Your task to perform on an android device: Clear the shopping cart on walmart.com. Add "razer huntsman" to the cart on walmart.com Image 0: 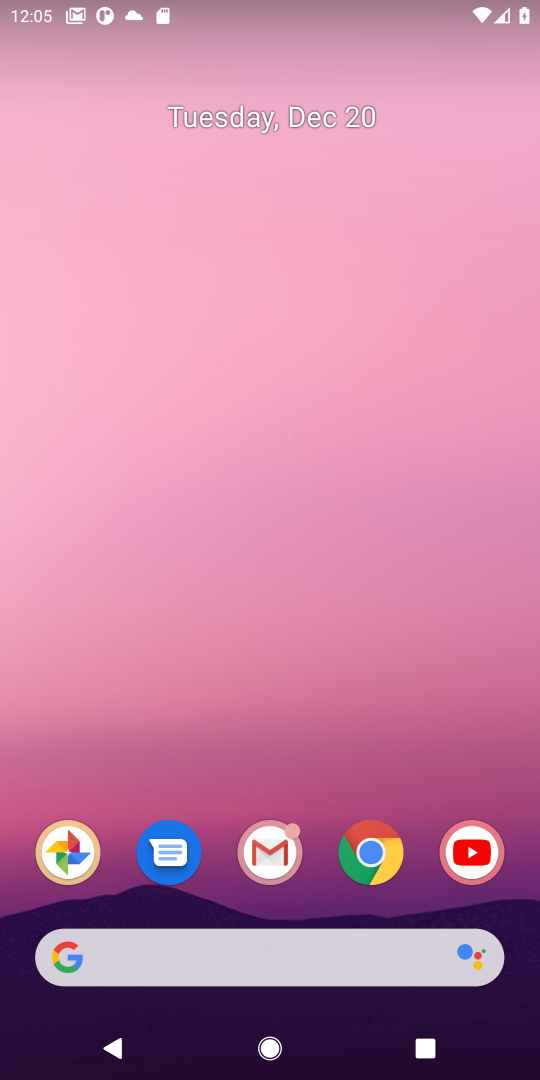
Step 0: click (357, 861)
Your task to perform on an android device: Clear the shopping cart on walmart.com. Add "razer huntsman" to the cart on walmart.com Image 1: 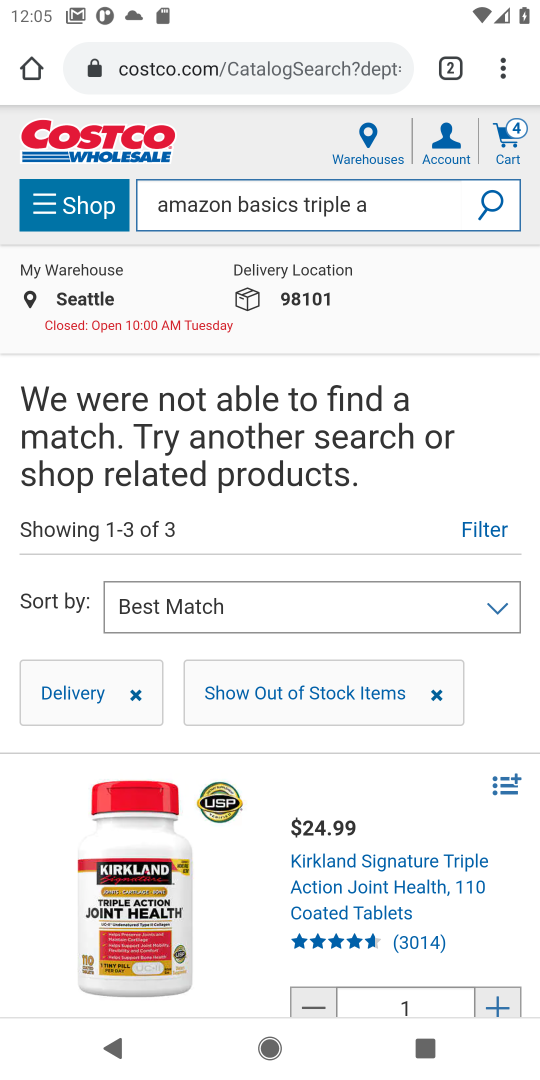
Step 1: click (211, 78)
Your task to perform on an android device: Clear the shopping cart on walmart.com. Add "razer huntsman" to the cart on walmart.com Image 2: 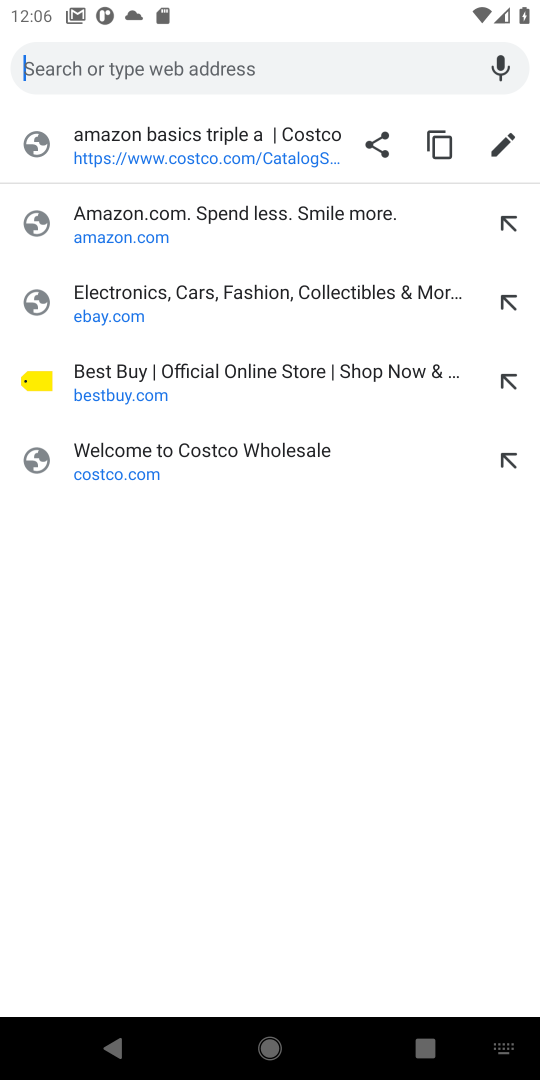
Step 2: type "walmart.com"
Your task to perform on an android device: Clear the shopping cart on walmart.com. Add "razer huntsman" to the cart on walmart.com Image 3: 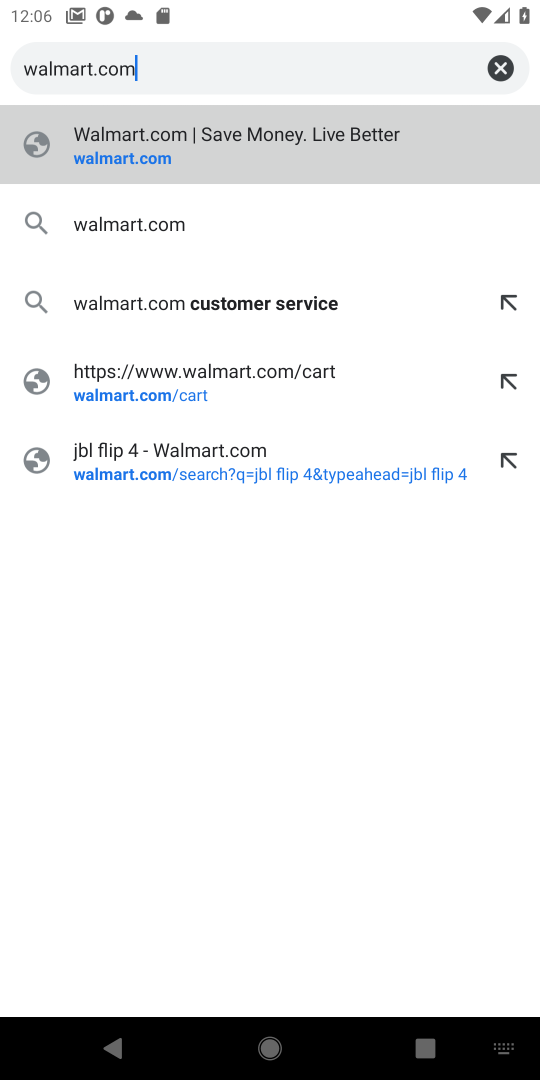
Step 3: click (117, 161)
Your task to perform on an android device: Clear the shopping cart on walmart.com. Add "razer huntsman" to the cart on walmart.com Image 4: 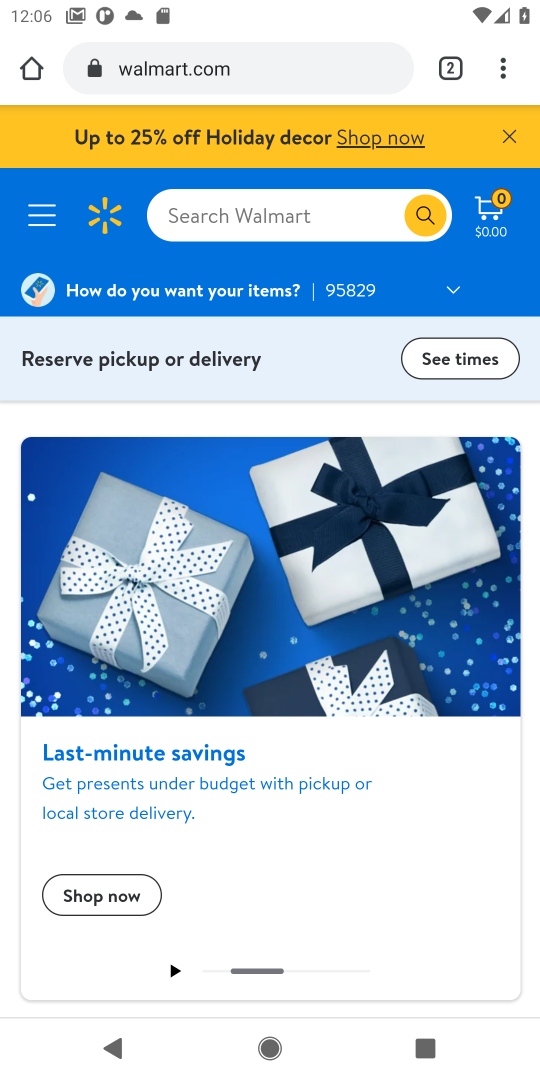
Step 4: click (496, 222)
Your task to perform on an android device: Clear the shopping cart on walmart.com. Add "razer huntsman" to the cart on walmart.com Image 5: 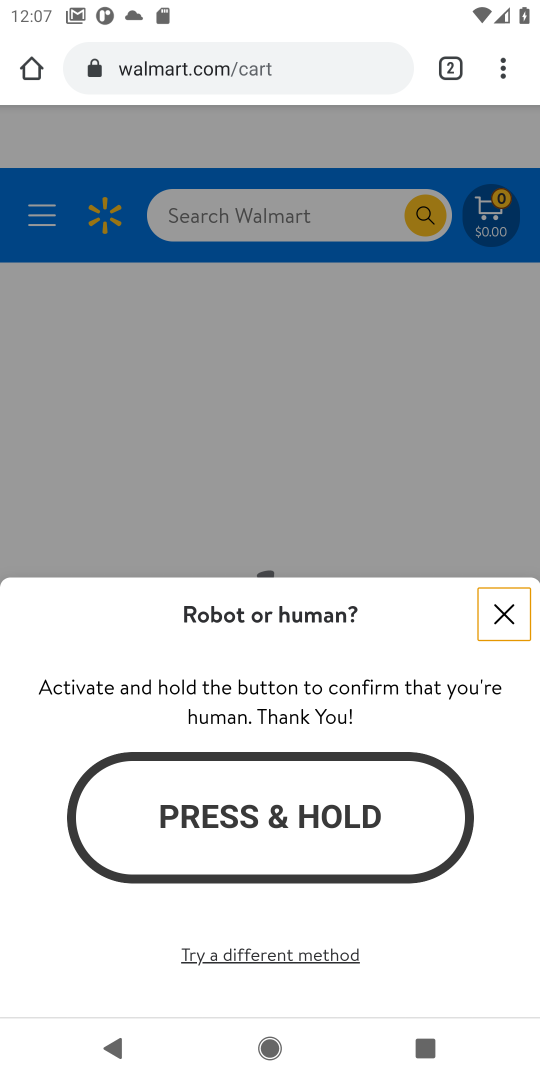
Step 5: click (269, 953)
Your task to perform on an android device: Clear the shopping cart on walmart.com. Add "razer huntsman" to the cart on walmart.com Image 6: 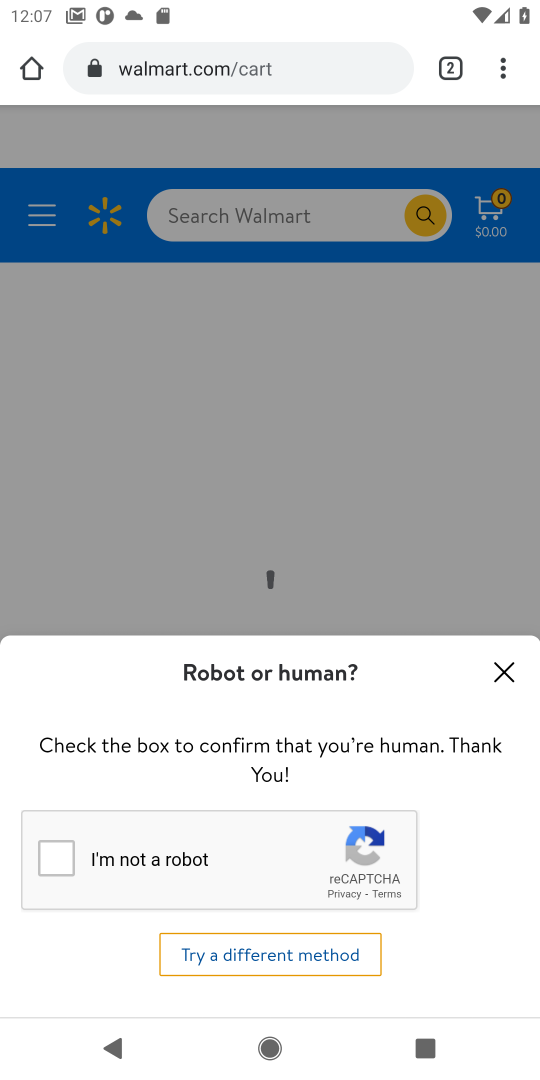
Step 6: click (48, 855)
Your task to perform on an android device: Clear the shopping cart on walmart.com. Add "razer huntsman" to the cart on walmart.com Image 7: 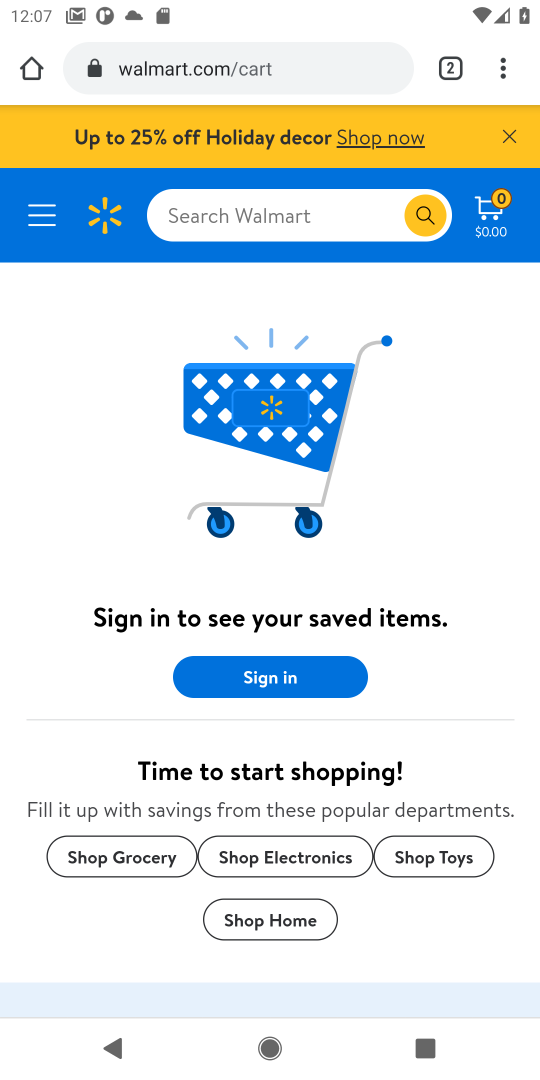
Step 7: click (202, 232)
Your task to perform on an android device: Clear the shopping cart on walmart.com. Add "razer huntsman" to the cart on walmart.com Image 8: 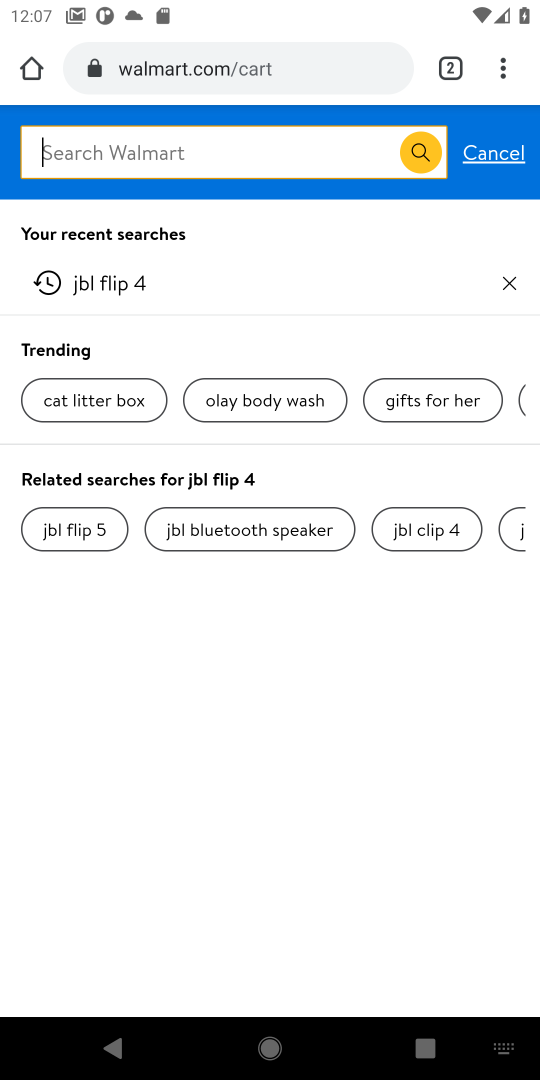
Step 8: type "razer huntsman"
Your task to perform on an android device: Clear the shopping cart on walmart.com. Add "razer huntsman" to the cart on walmart.com Image 9: 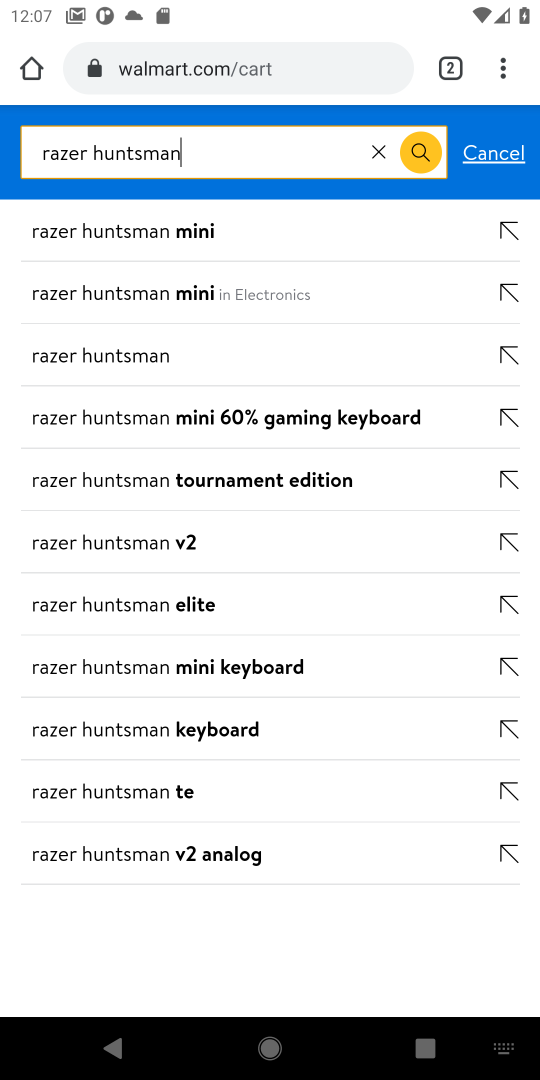
Step 9: click (100, 358)
Your task to perform on an android device: Clear the shopping cart on walmart.com. Add "razer huntsman" to the cart on walmart.com Image 10: 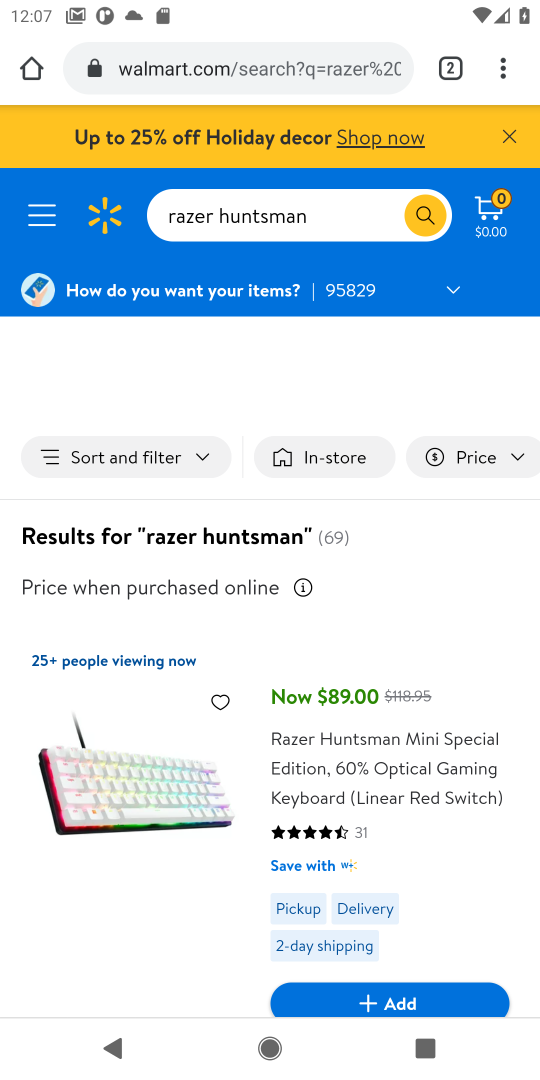
Step 10: drag from (235, 767) to (263, 525)
Your task to perform on an android device: Clear the shopping cart on walmart.com. Add "razer huntsman" to the cart on walmart.com Image 11: 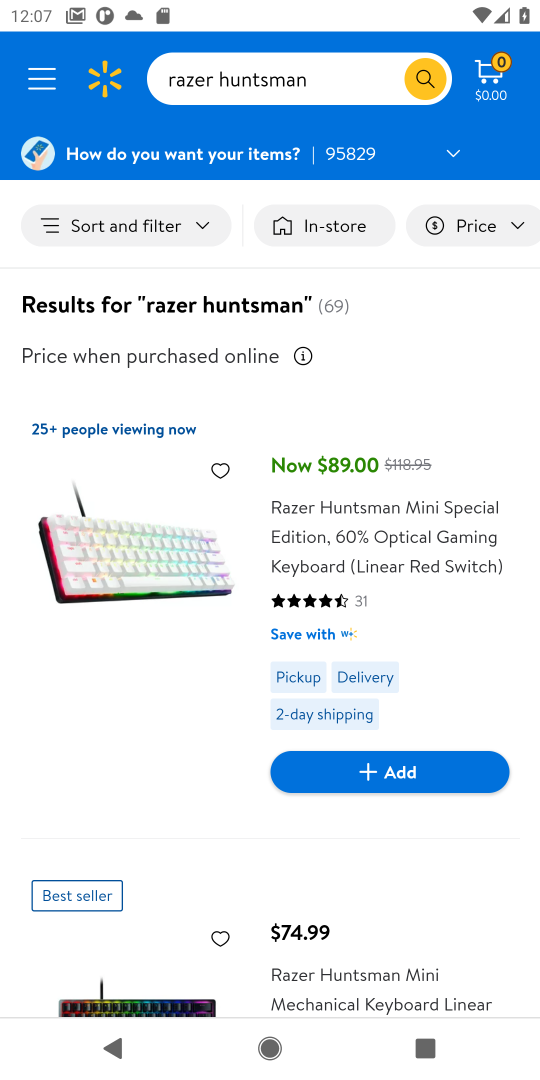
Step 11: click (397, 770)
Your task to perform on an android device: Clear the shopping cart on walmart.com. Add "razer huntsman" to the cart on walmart.com Image 12: 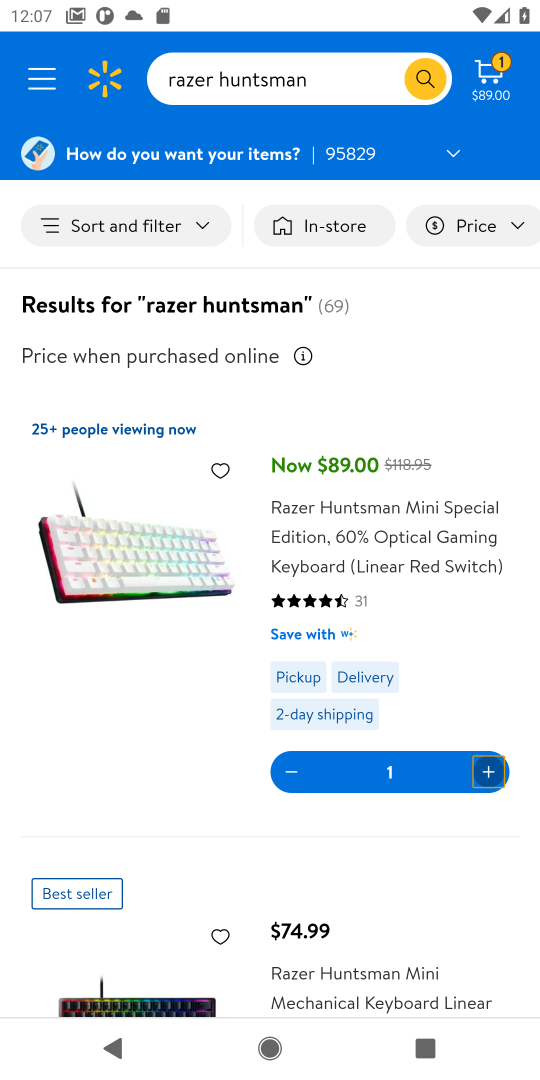
Step 12: task complete